Your task to perform on an android device: What's the weather today? Image 0: 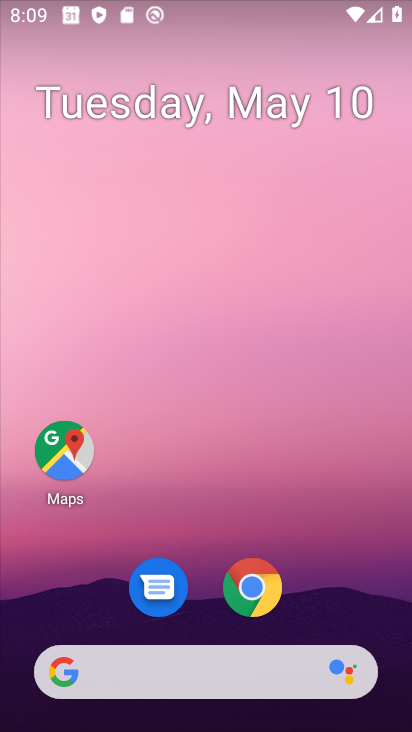
Step 0: drag from (356, 172) to (359, 16)
Your task to perform on an android device: What's the weather today? Image 1: 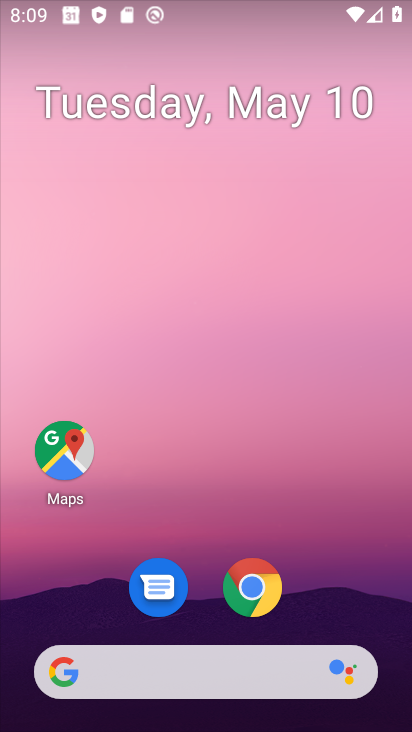
Step 1: drag from (336, 567) to (319, 152)
Your task to perform on an android device: What's the weather today? Image 2: 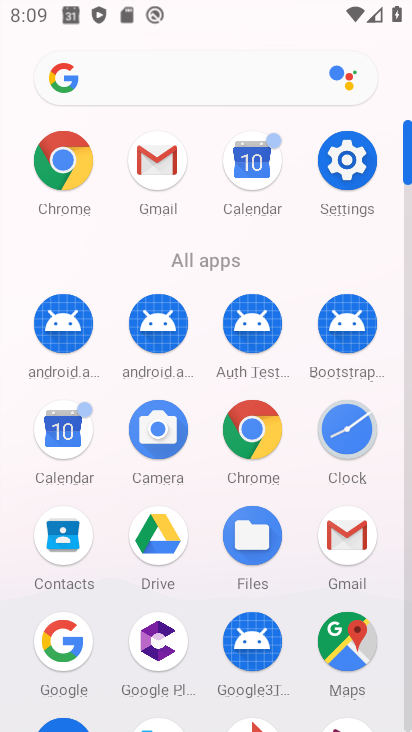
Step 2: drag from (387, 512) to (350, 182)
Your task to perform on an android device: What's the weather today? Image 3: 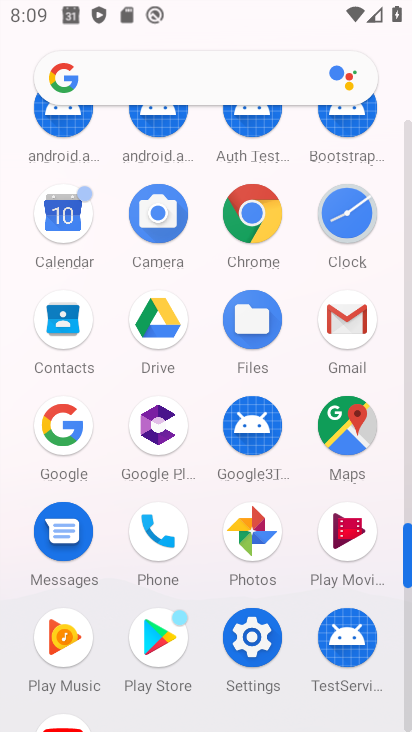
Step 3: drag from (393, 633) to (368, 337)
Your task to perform on an android device: What's the weather today? Image 4: 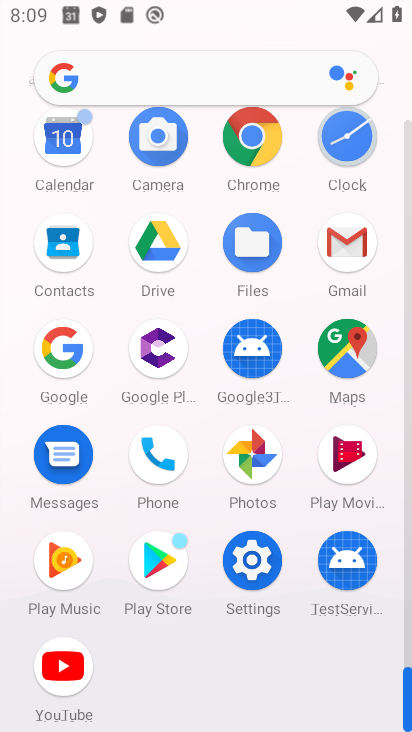
Step 4: click (47, 349)
Your task to perform on an android device: What's the weather today? Image 5: 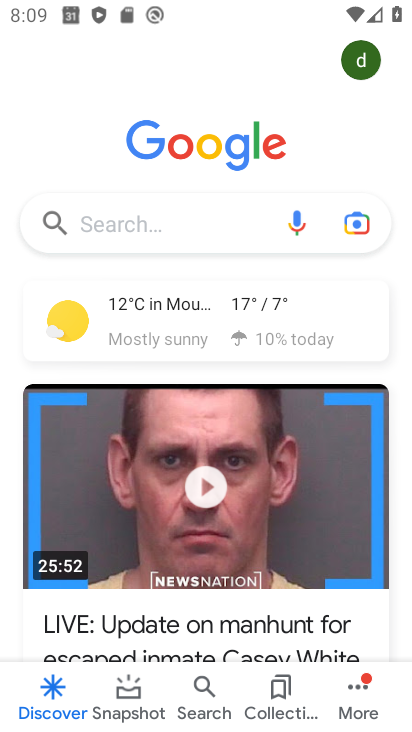
Step 5: click (205, 351)
Your task to perform on an android device: What's the weather today? Image 6: 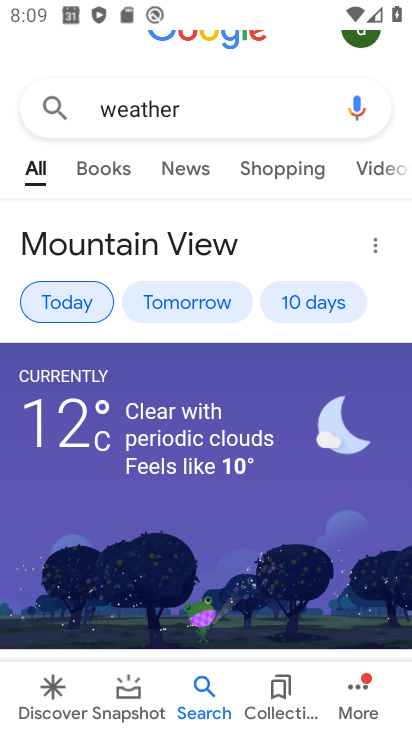
Step 6: task complete